Your task to perform on an android device: When is my next meeting? Image 0: 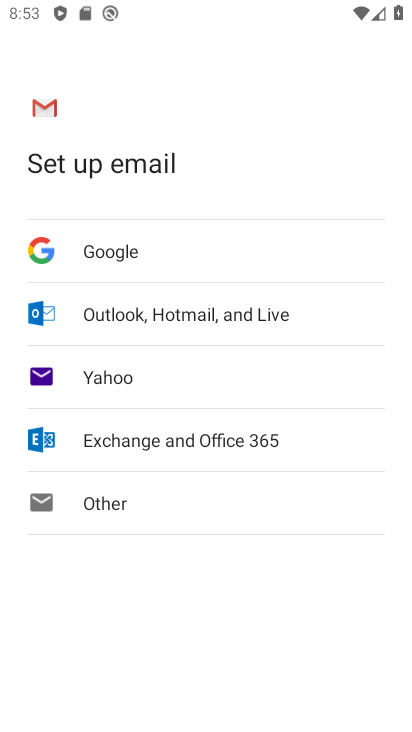
Step 0: press home button
Your task to perform on an android device: When is my next meeting? Image 1: 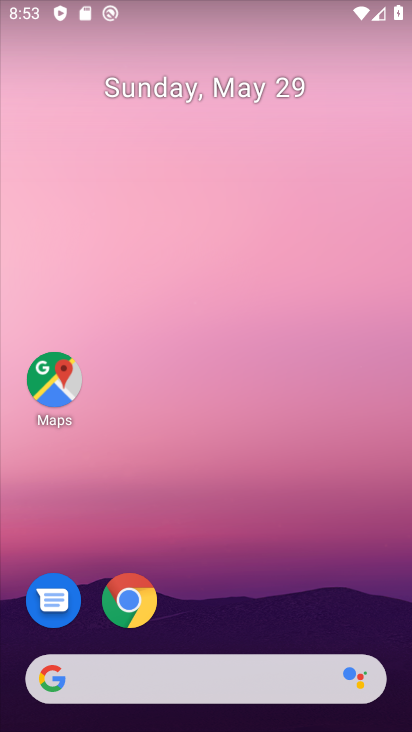
Step 1: drag from (206, 723) to (171, 219)
Your task to perform on an android device: When is my next meeting? Image 2: 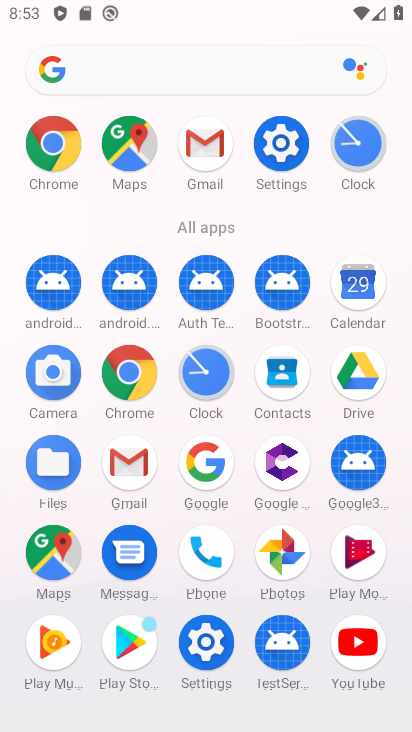
Step 2: click (363, 290)
Your task to perform on an android device: When is my next meeting? Image 3: 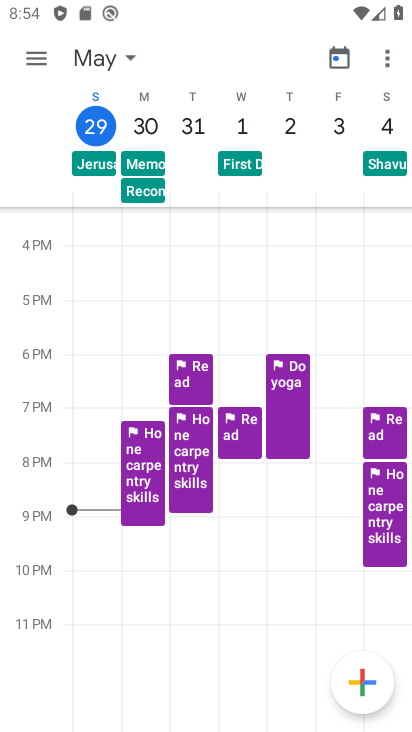
Step 3: click (149, 123)
Your task to perform on an android device: When is my next meeting? Image 4: 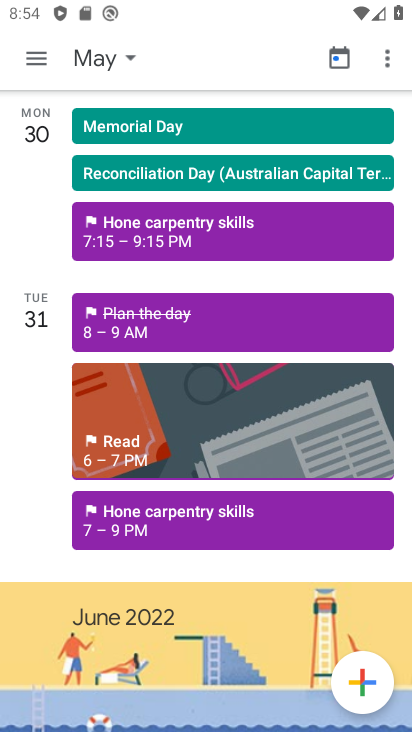
Step 4: task complete